Your task to perform on an android device: turn pop-ups on in chrome Image 0: 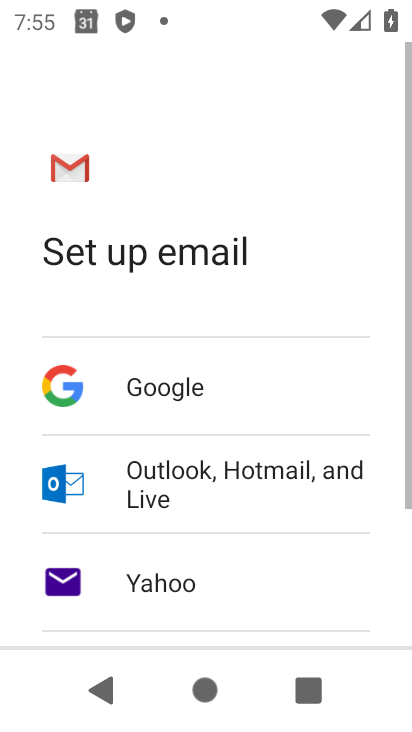
Step 0: press home button
Your task to perform on an android device: turn pop-ups on in chrome Image 1: 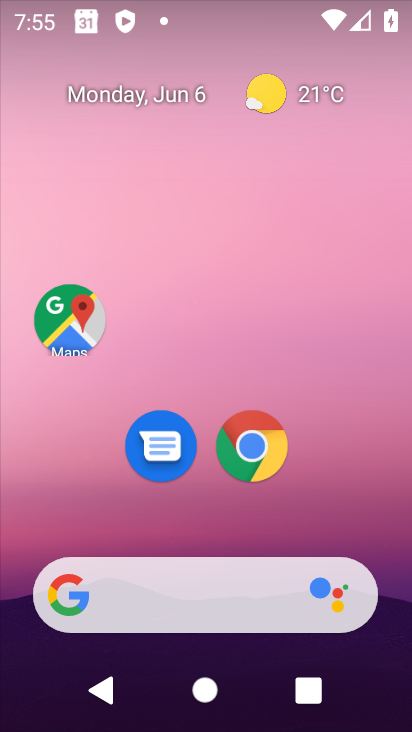
Step 1: click (262, 449)
Your task to perform on an android device: turn pop-ups on in chrome Image 2: 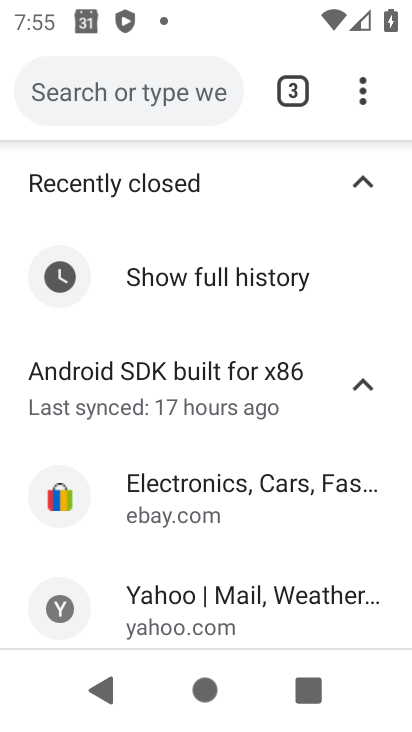
Step 2: click (361, 79)
Your task to perform on an android device: turn pop-ups on in chrome Image 3: 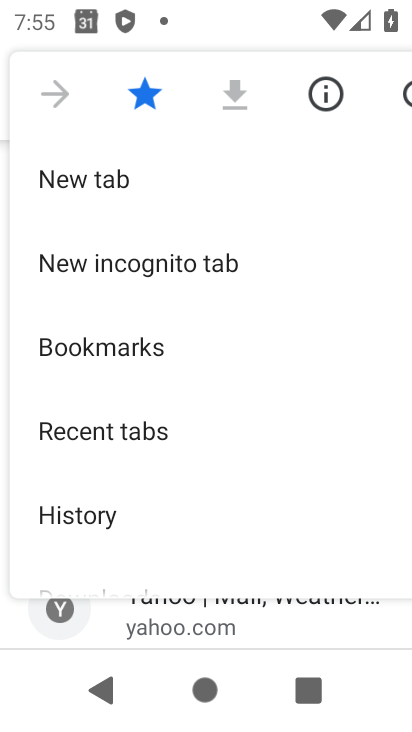
Step 3: drag from (257, 529) to (289, 126)
Your task to perform on an android device: turn pop-ups on in chrome Image 4: 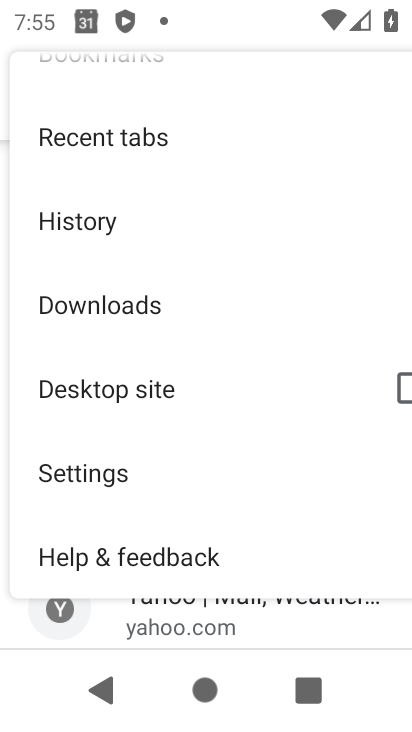
Step 4: click (102, 480)
Your task to perform on an android device: turn pop-ups on in chrome Image 5: 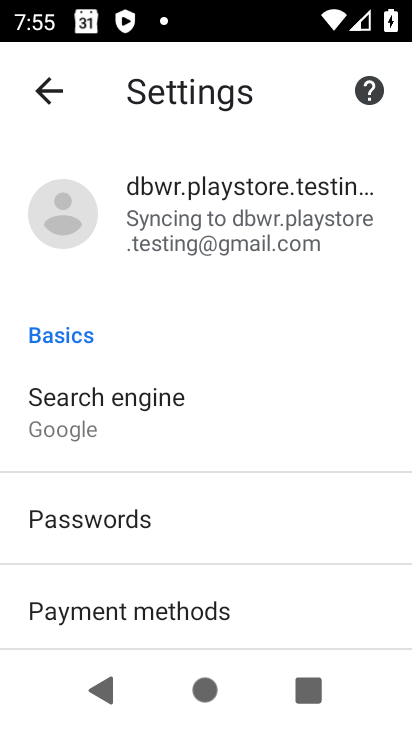
Step 5: drag from (204, 596) to (272, 336)
Your task to perform on an android device: turn pop-ups on in chrome Image 6: 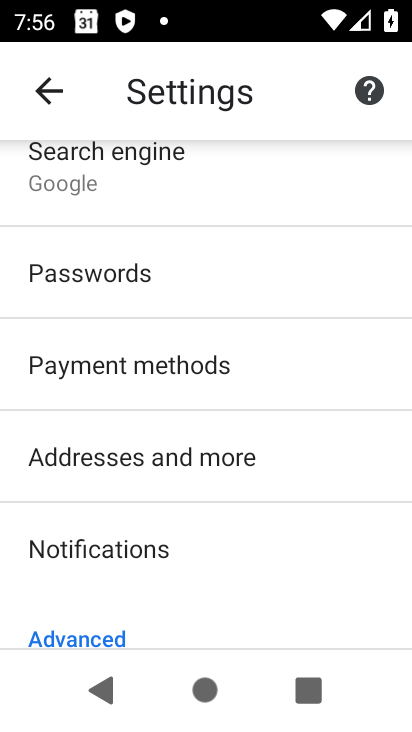
Step 6: drag from (234, 609) to (327, 220)
Your task to perform on an android device: turn pop-ups on in chrome Image 7: 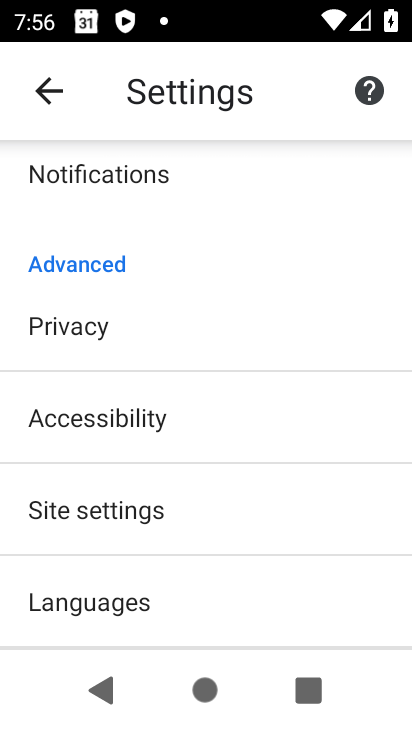
Step 7: click (143, 515)
Your task to perform on an android device: turn pop-ups on in chrome Image 8: 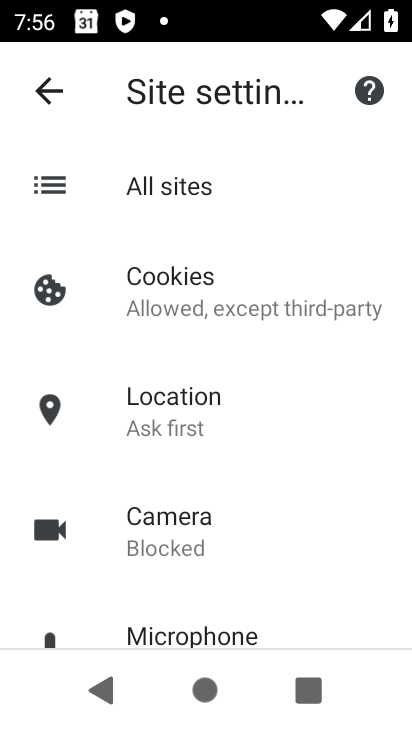
Step 8: drag from (233, 499) to (251, 46)
Your task to perform on an android device: turn pop-ups on in chrome Image 9: 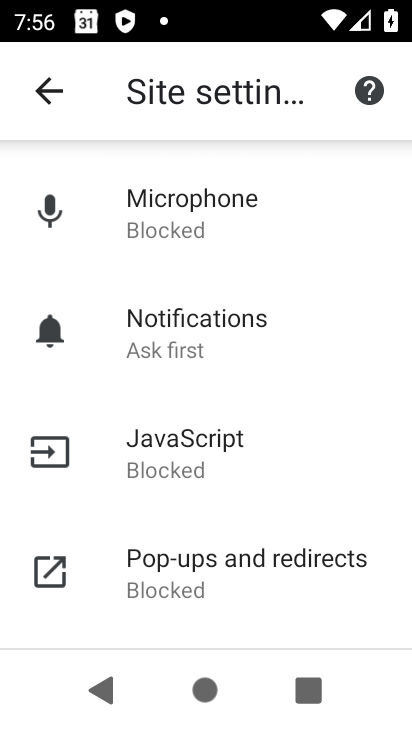
Step 9: click (182, 544)
Your task to perform on an android device: turn pop-ups on in chrome Image 10: 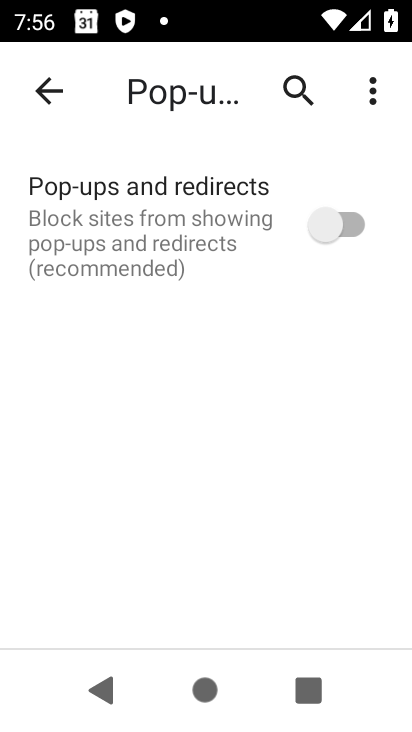
Step 10: click (326, 239)
Your task to perform on an android device: turn pop-ups on in chrome Image 11: 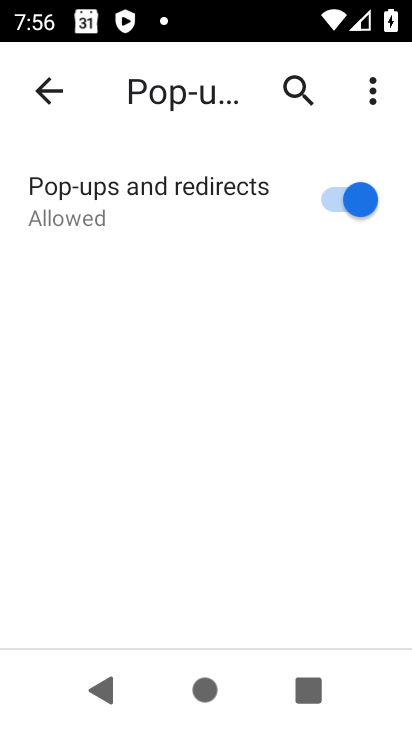
Step 11: task complete